Your task to perform on an android device: Go to Android settings Image 0: 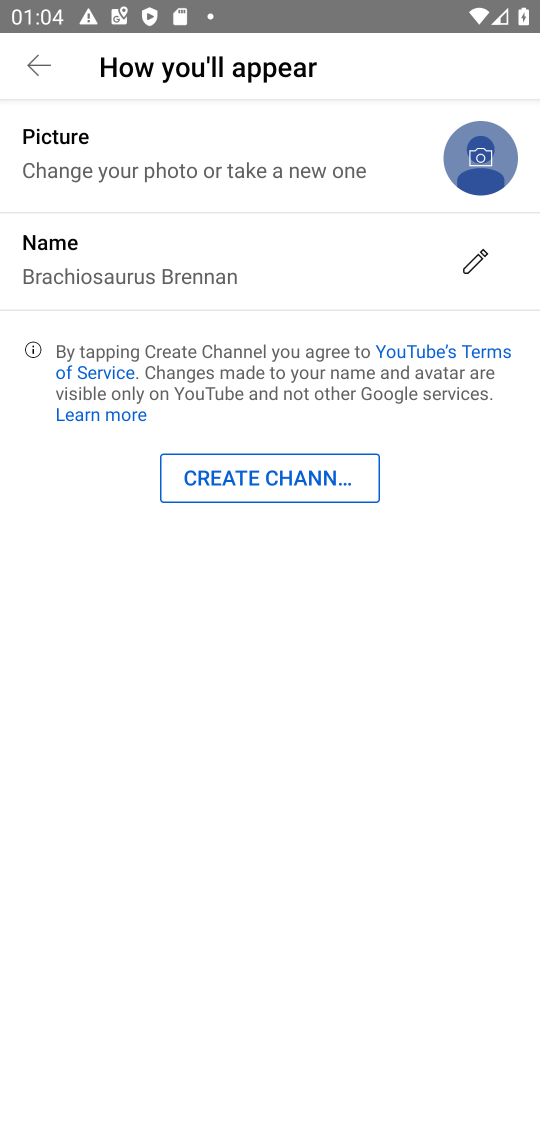
Step 0: press home button
Your task to perform on an android device: Go to Android settings Image 1: 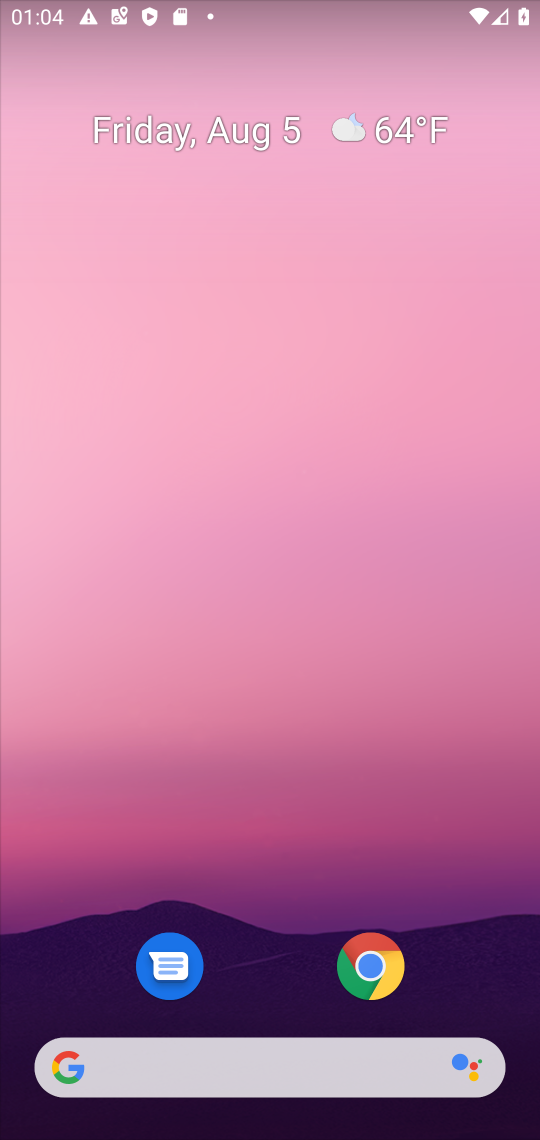
Step 1: drag from (301, 889) to (347, 42)
Your task to perform on an android device: Go to Android settings Image 2: 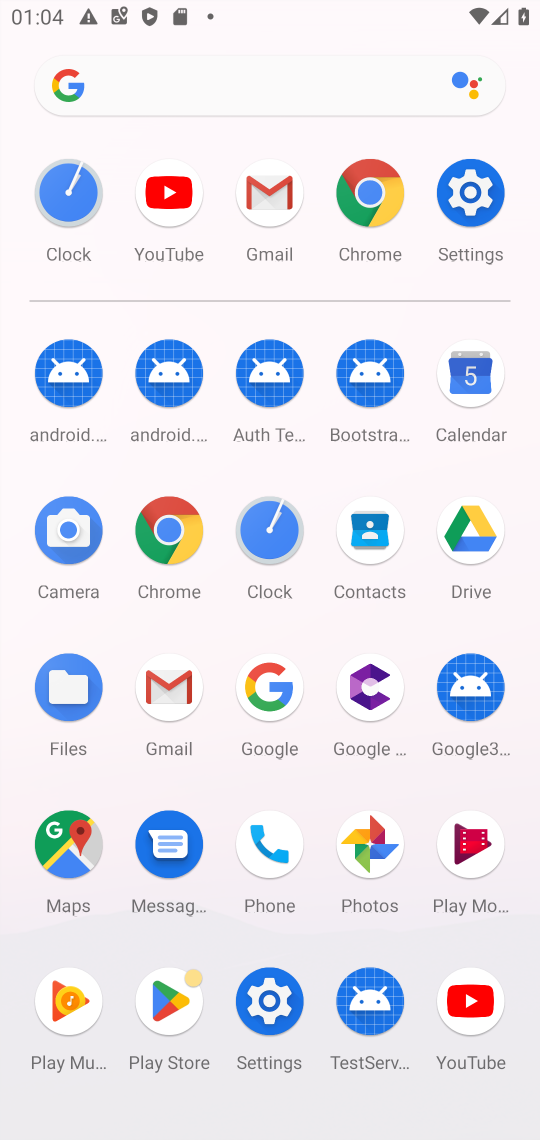
Step 2: click (464, 188)
Your task to perform on an android device: Go to Android settings Image 3: 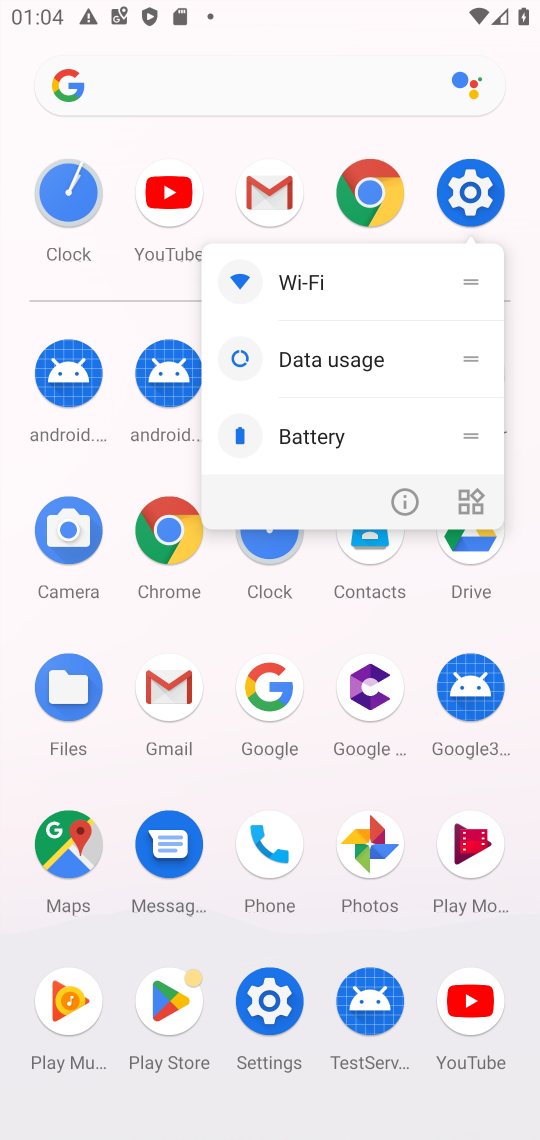
Step 3: click (464, 186)
Your task to perform on an android device: Go to Android settings Image 4: 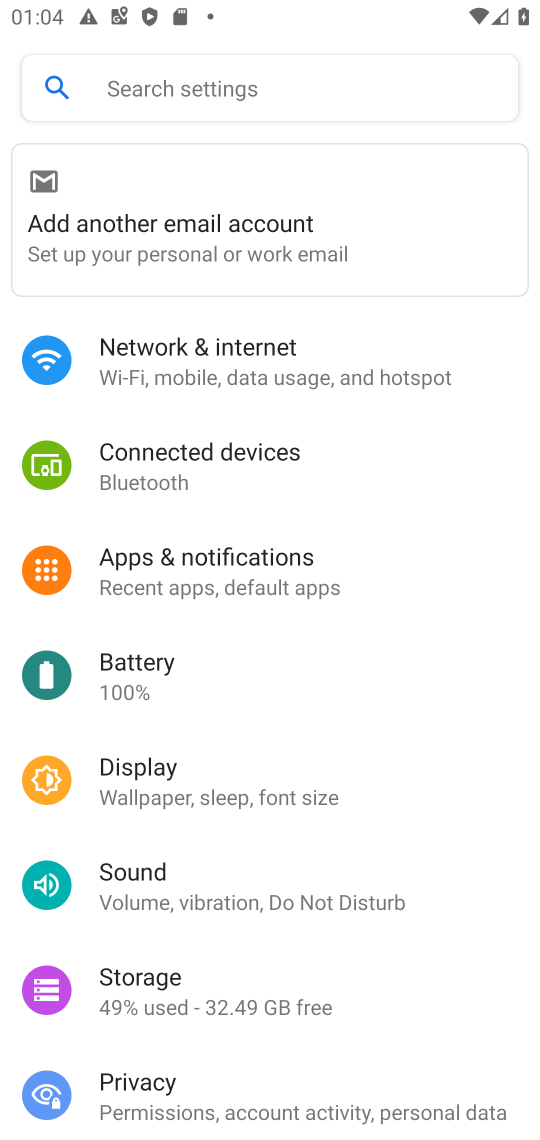
Step 4: drag from (298, 899) to (391, 49)
Your task to perform on an android device: Go to Android settings Image 5: 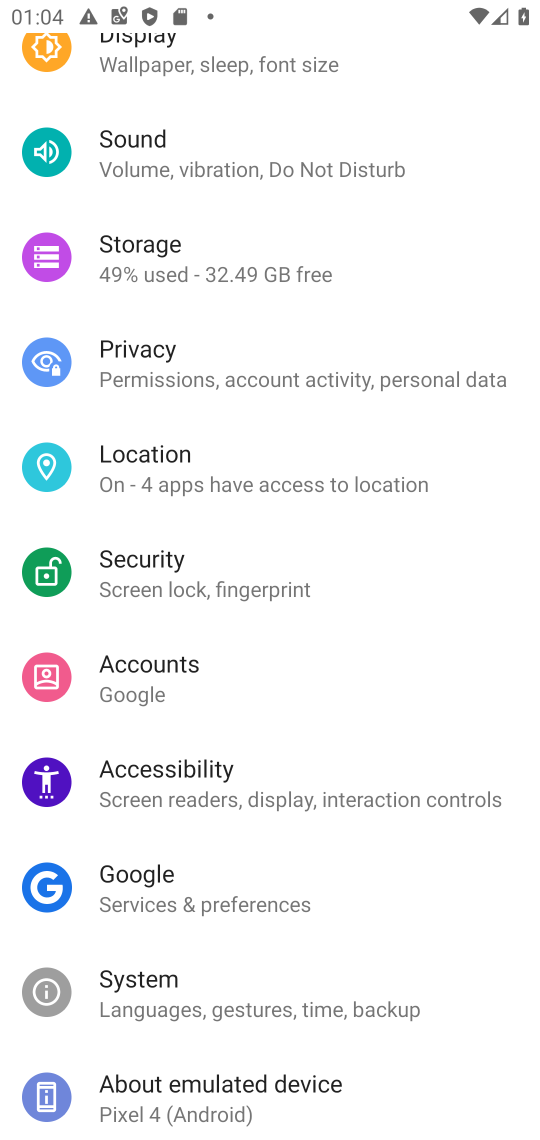
Step 5: click (250, 1071)
Your task to perform on an android device: Go to Android settings Image 6: 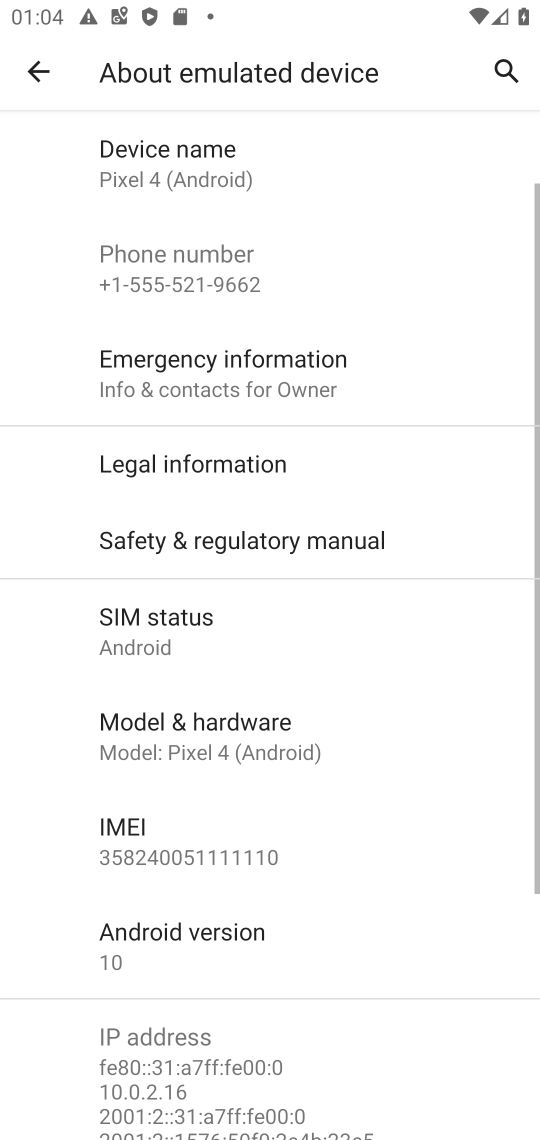
Step 6: task complete